Your task to perform on an android device: check storage Image 0: 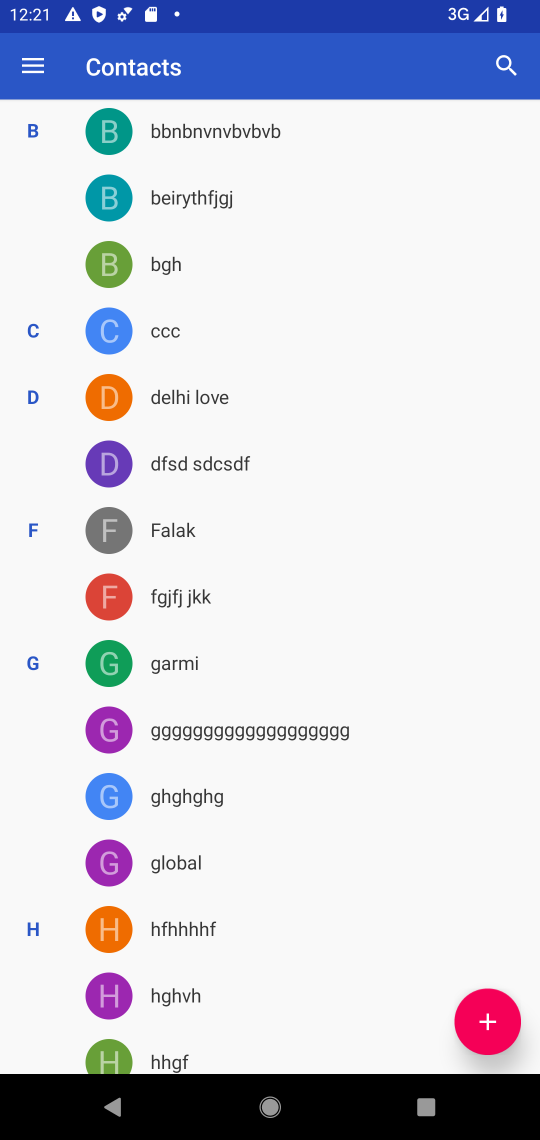
Step 0: drag from (287, 879) to (239, 14)
Your task to perform on an android device: check storage Image 1: 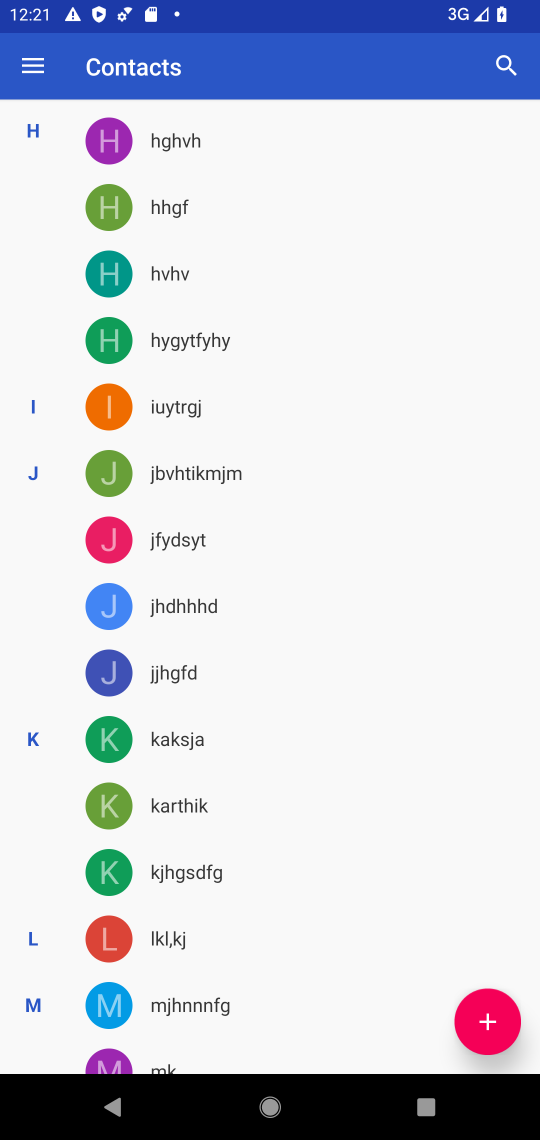
Step 1: press home button
Your task to perform on an android device: check storage Image 2: 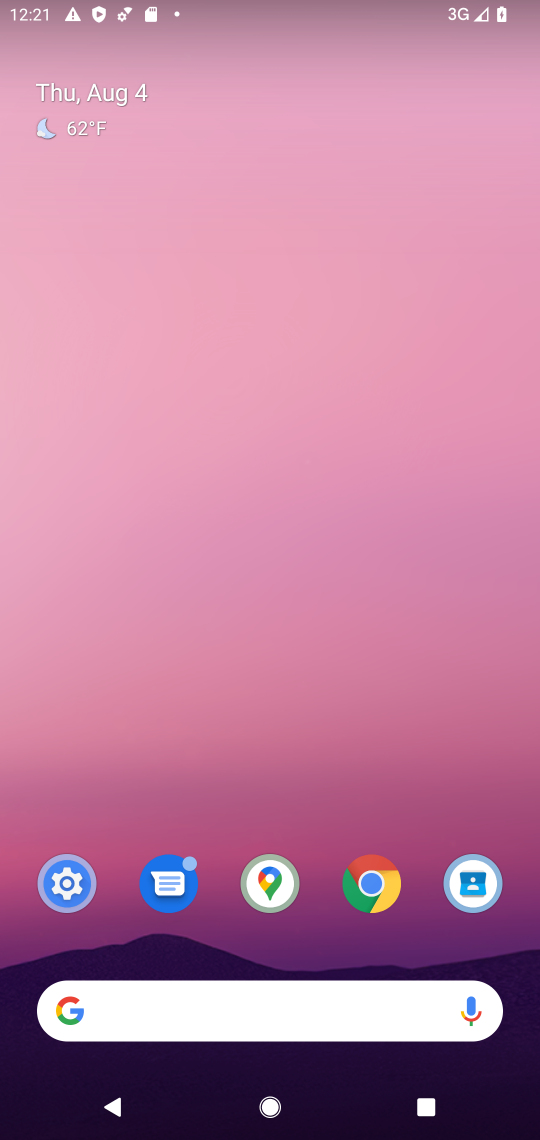
Step 2: drag from (256, 1030) to (130, 390)
Your task to perform on an android device: check storage Image 3: 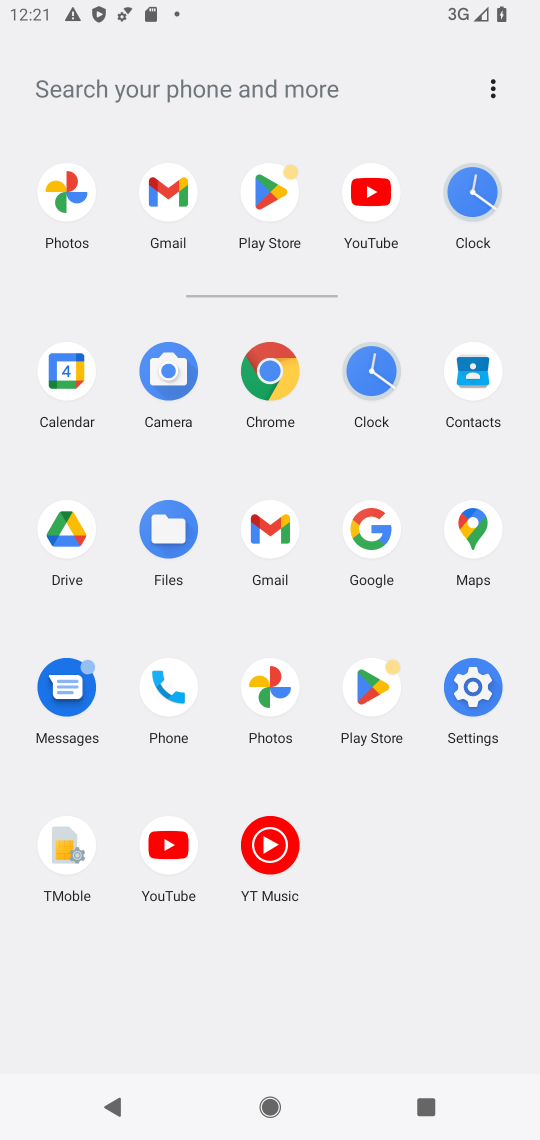
Step 3: click (488, 674)
Your task to perform on an android device: check storage Image 4: 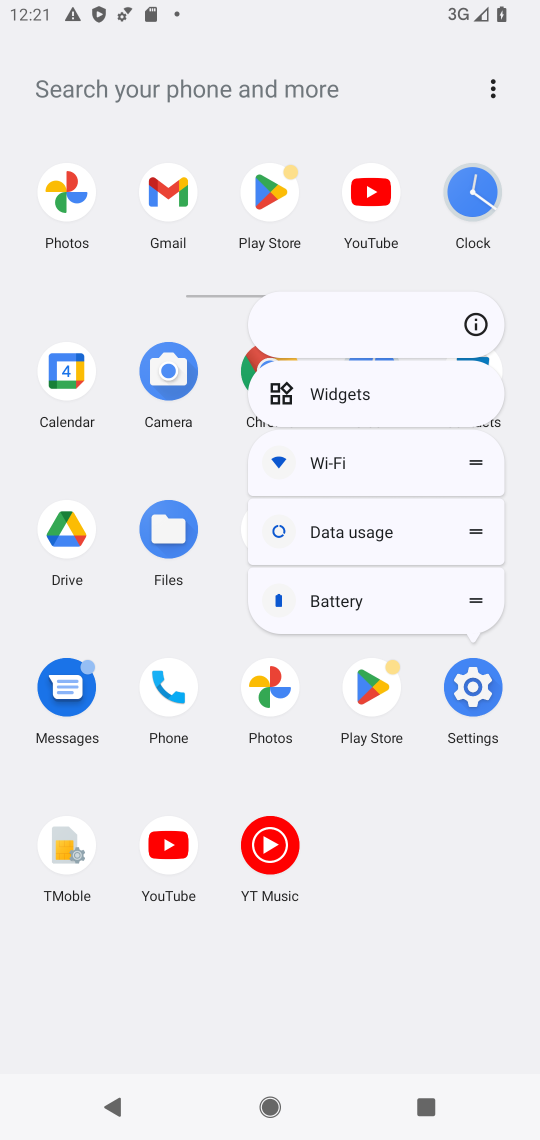
Step 4: click (482, 320)
Your task to perform on an android device: check storage Image 5: 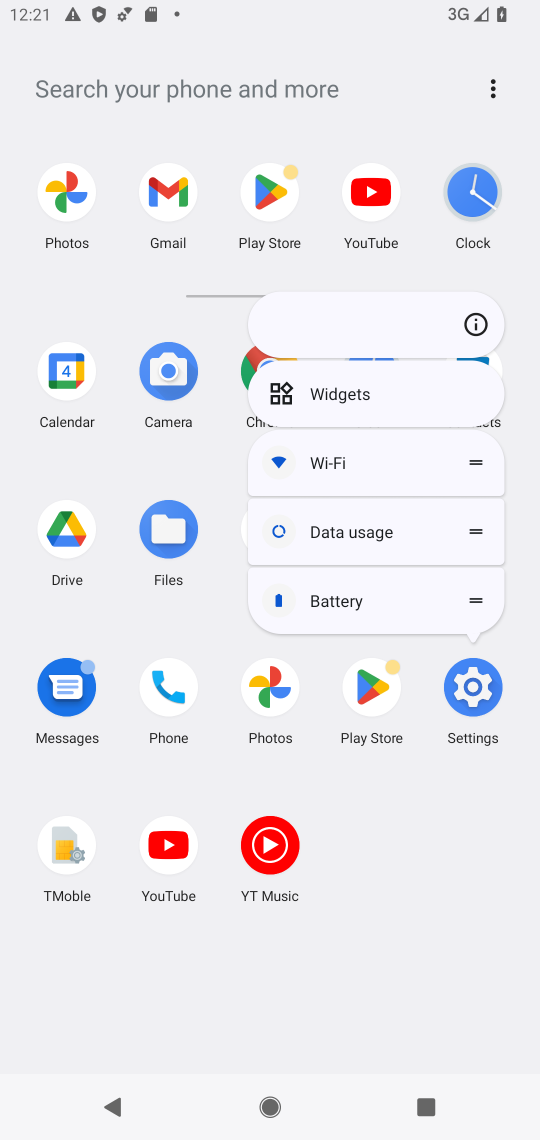
Step 5: click (482, 320)
Your task to perform on an android device: check storage Image 6: 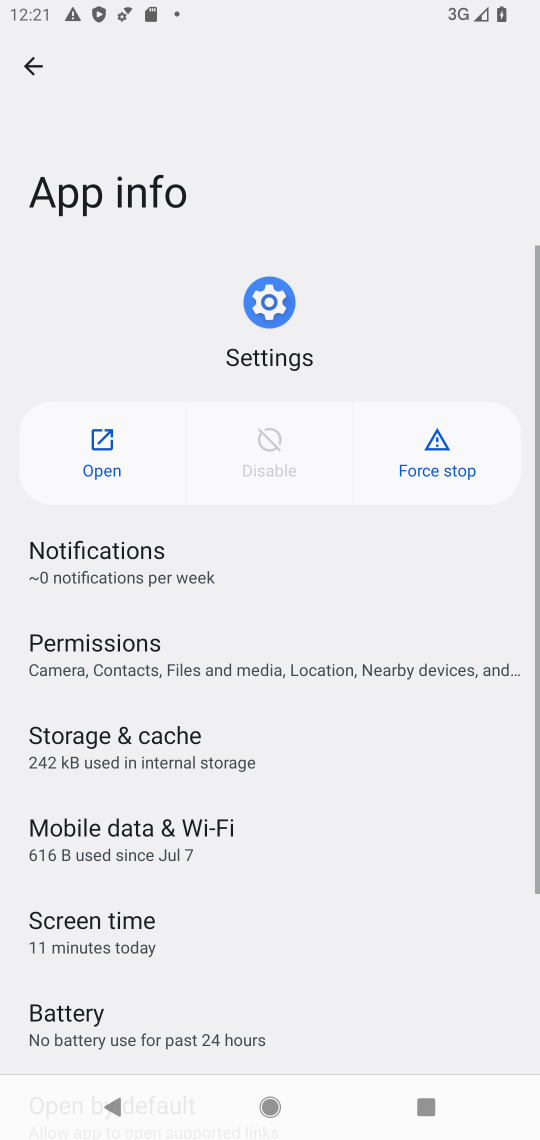
Step 6: click (81, 453)
Your task to perform on an android device: check storage Image 7: 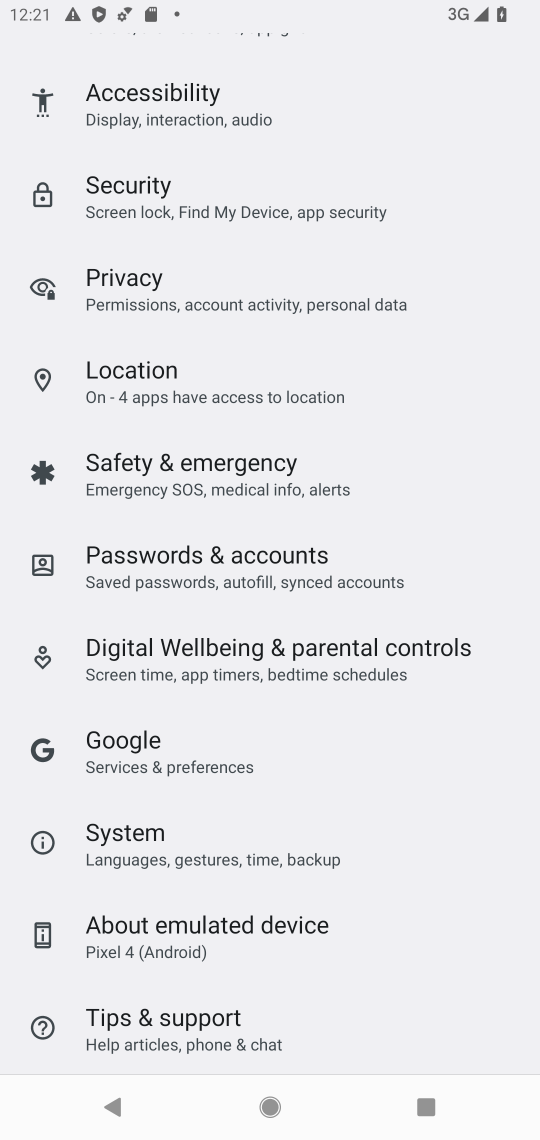
Step 7: drag from (254, 815) to (325, 165)
Your task to perform on an android device: check storage Image 8: 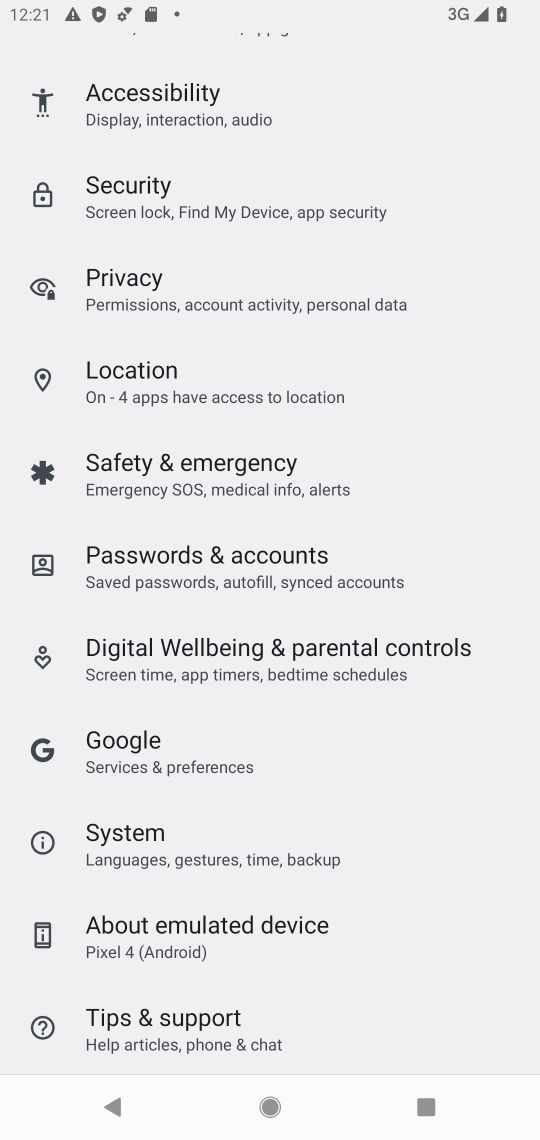
Step 8: drag from (259, 333) to (423, 815)
Your task to perform on an android device: check storage Image 9: 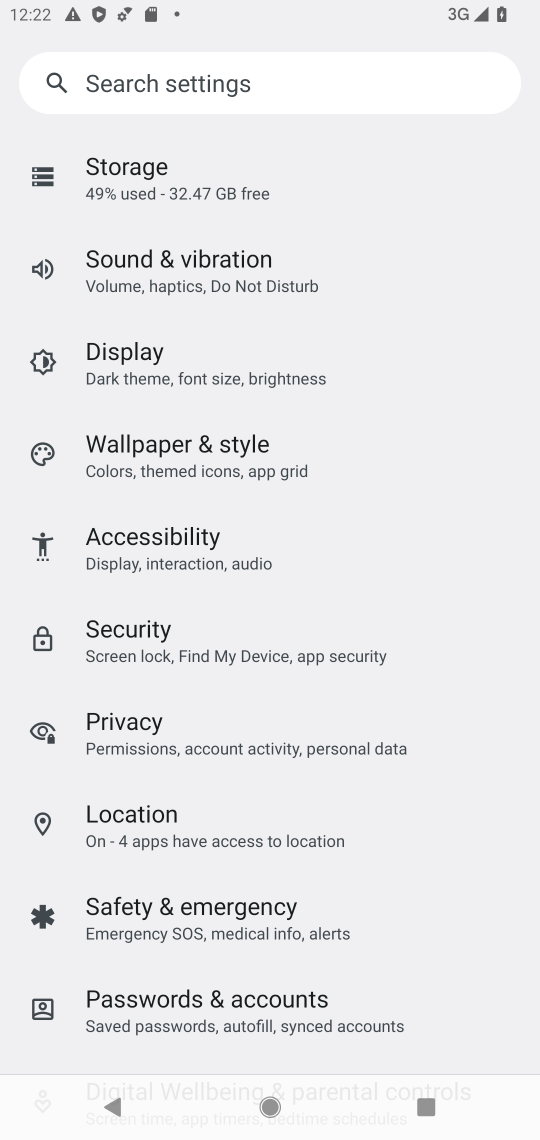
Step 9: click (134, 180)
Your task to perform on an android device: check storage Image 10: 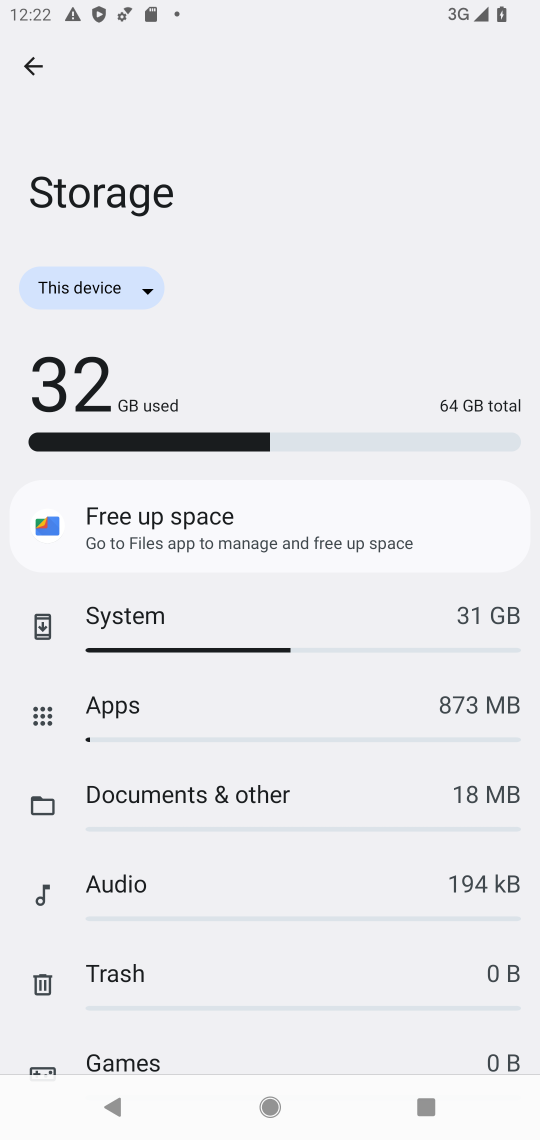
Step 10: task complete